Your task to perform on an android device: empty trash in the gmail app Image 0: 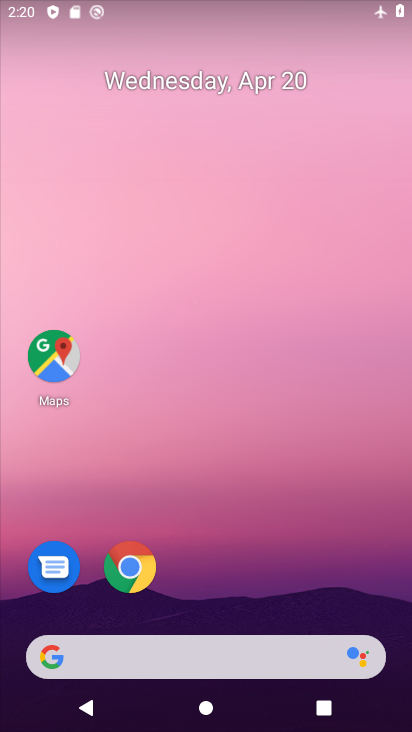
Step 0: drag from (159, 650) to (156, 382)
Your task to perform on an android device: empty trash in the gmail app Image 1: 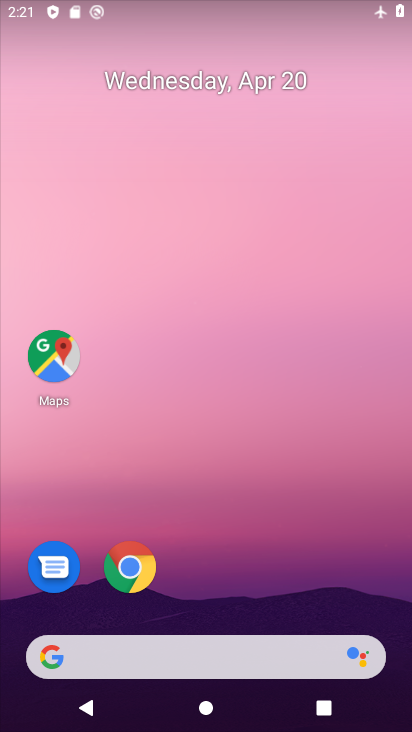
Step 1: drag from (213, 658) to (210, 249)
Your task to perform on an android device: empty trash in the gmail app Image 2: 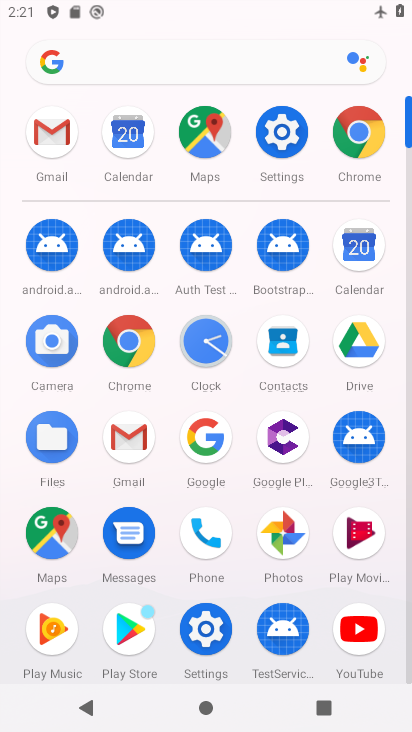
Step 2: click (140, 442)
Your task to perform on an android device: empty trash in the gmail app Image 3: 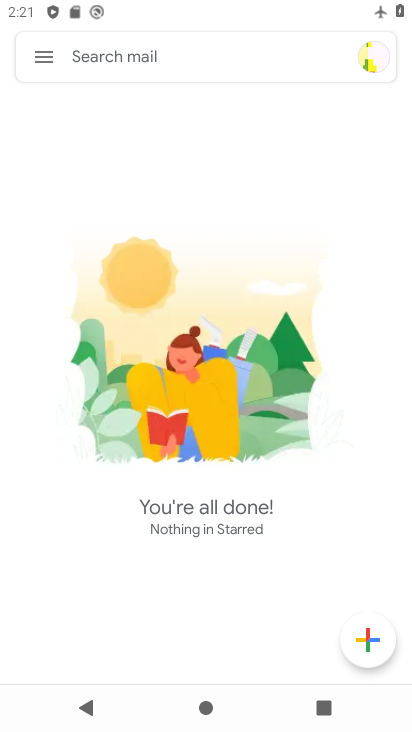
Step 3: click (40, 48)
Your task to perform on an android device: empty trash in the gmail app Image 4: 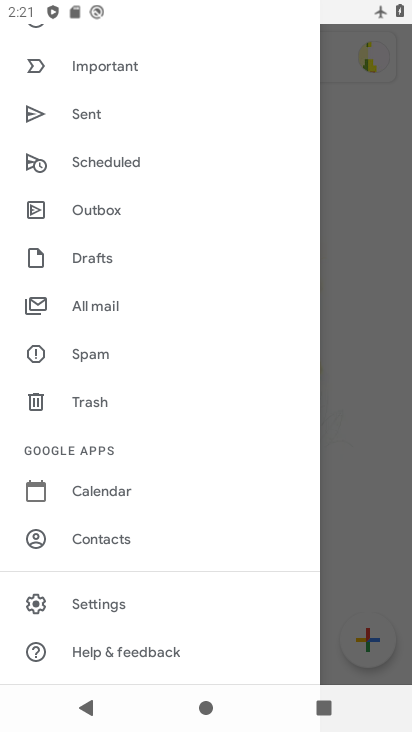
Step 4: click (83, 396)
Your task to perform on an android device: empty trash in the gmail app Image 5: 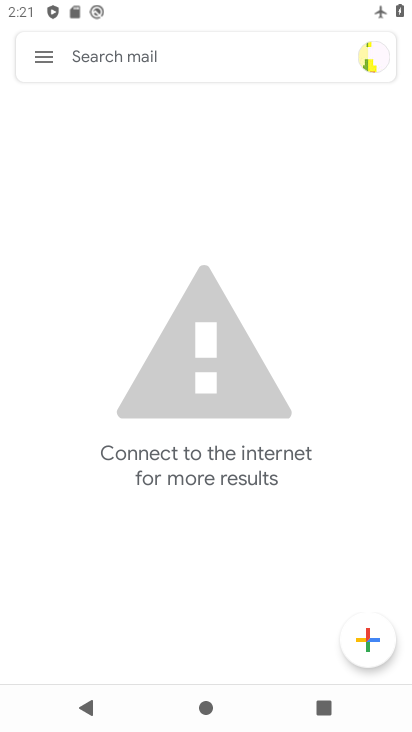
Step 5: task complete